Your task to perform on an android device: clear all cookies in the chrome app Image 0: 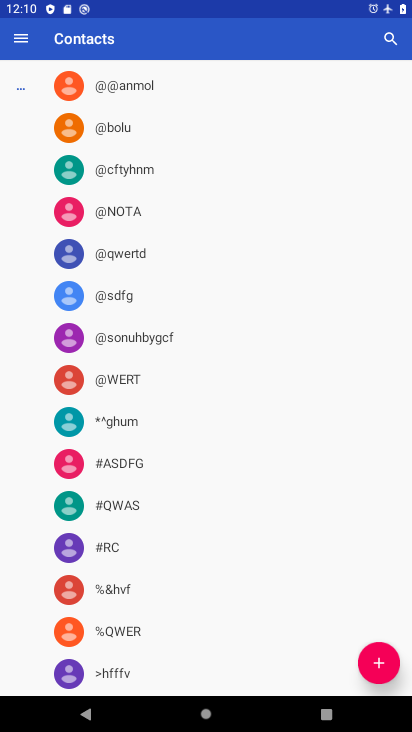
Step 0: press home button
Your task to perform on an android device: clear all cookies in the chrome app Image 1: 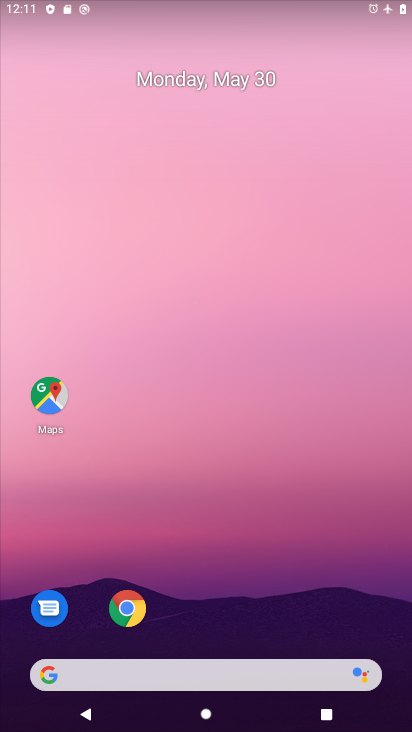
Step 1: click (137, 614)
Your task to perform on an android device: clear all cookies in the chrome app Image 2: 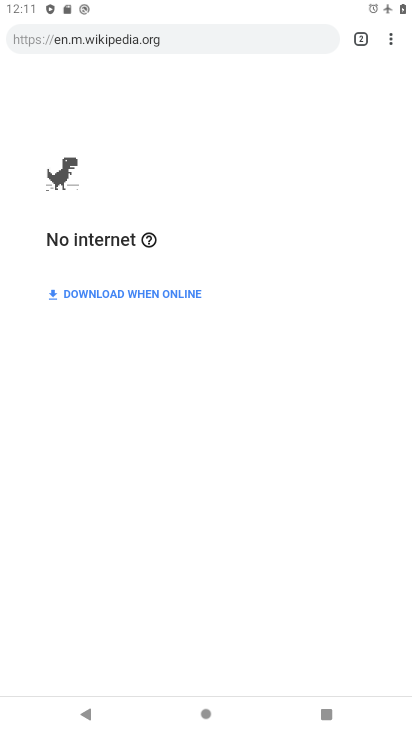
Step 2: click (392, 35)
Your task to perform on an android device: clear all cookies in the chrome app Image 3: 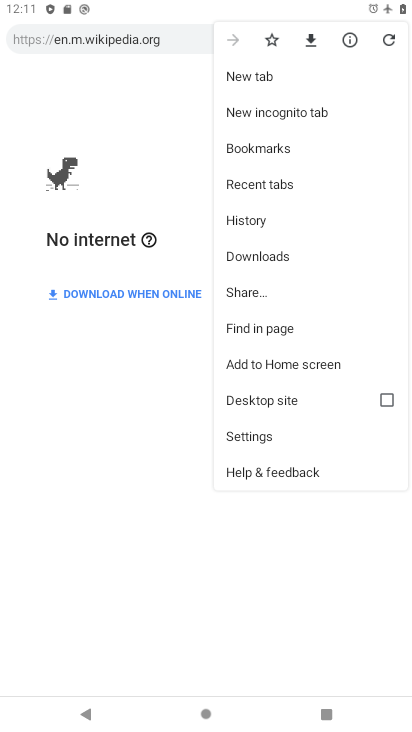
Step 3: click (243, 436)
Your task to perform on an android device: clear all cookies in the chrome app Image 4: 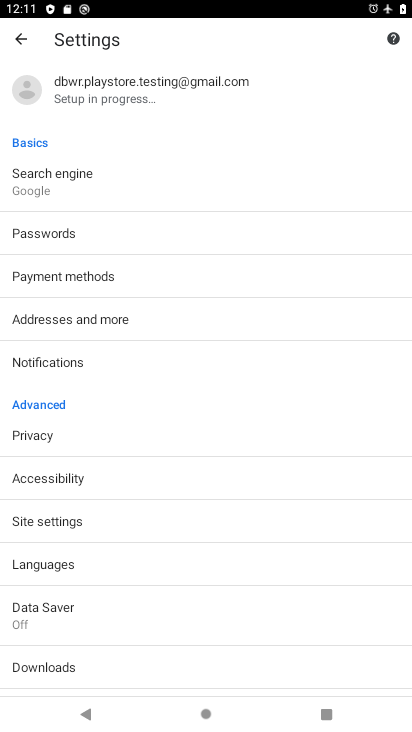
Step 4: click (34, 412)
Your task to perform on an android device: clear all cookies in the chrome app Image 5: 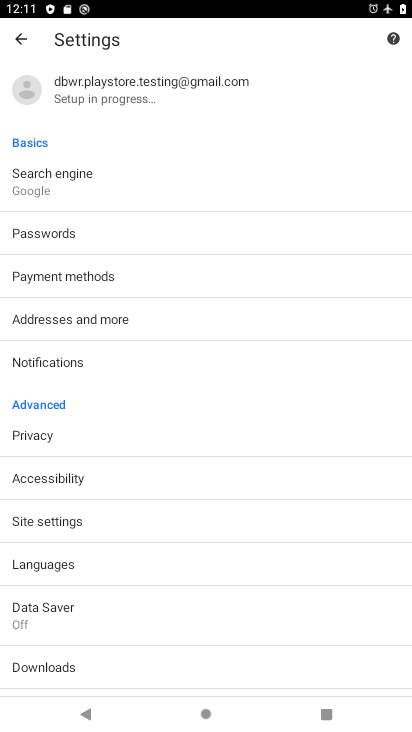
Step 5: click (36, 428)
Your task to perform on an android device: clear all cookies in the chrome app Image 6: 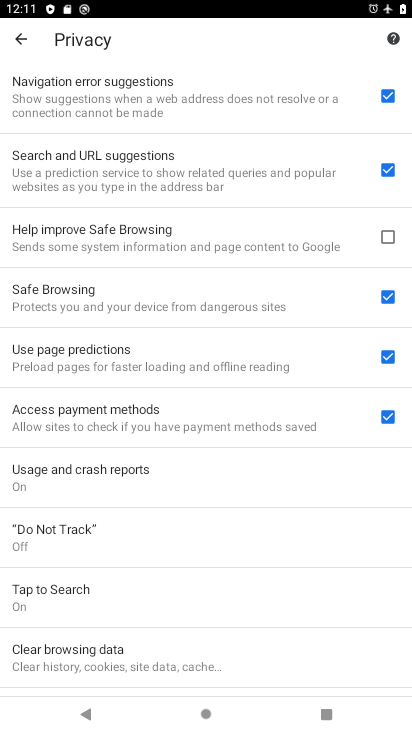
Step 6: click (129, 643)
Your task to perform on an android device: clear all cookies in the chrome app Image 7: 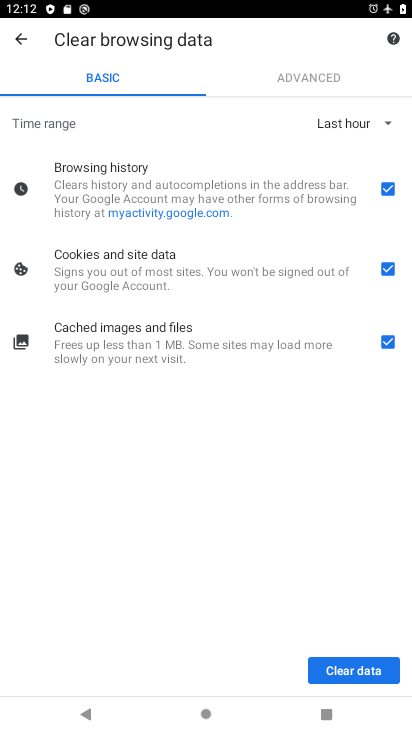
Step 7: click (363, 674)
Your task to perform on an android device: clear all cookies in the chrome app Image 8: 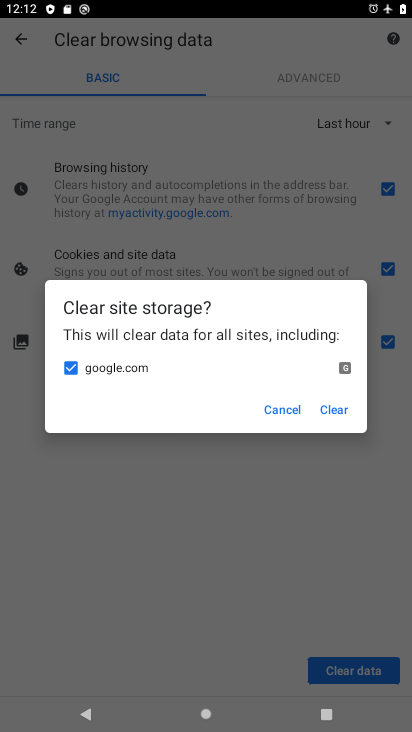
Step 8: click (323, 400)
Your task to perform on an android device: clear all cookies in the chrome app Image 9: 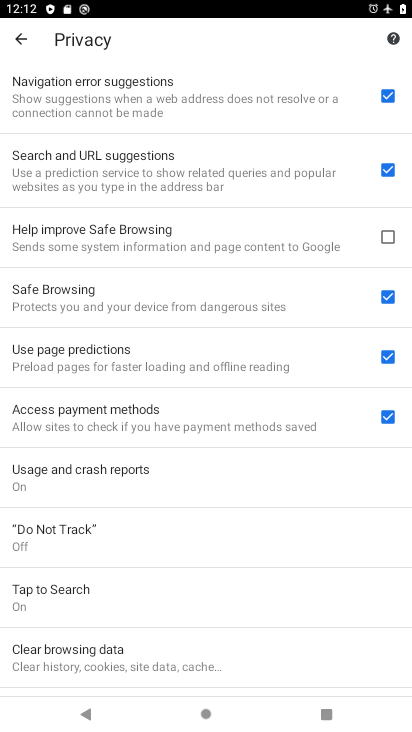
Step 9: task complete